Your task to perform on an android device: check data usage Image 0: 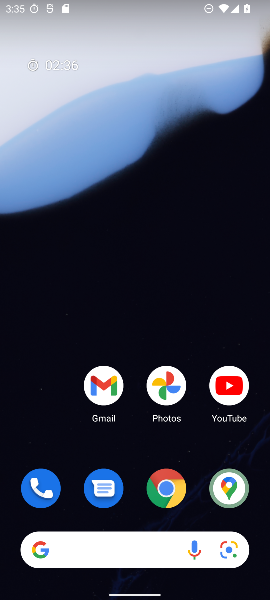
Step 0: drag from (199, 340) to (139, 8)
Your task to perform on an android device: check data usage Image 1: 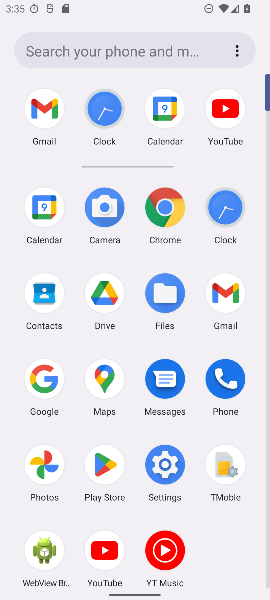
Step 1: click (156, 454)
Your task to perform on an android device: check data usage Image 2: 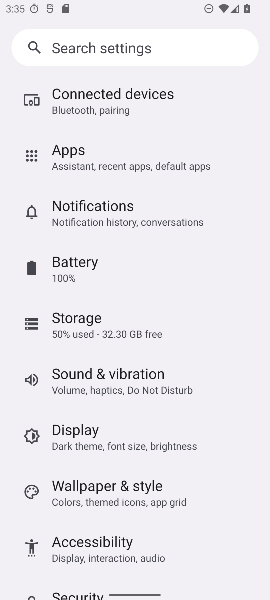
Step 2: drag from (171, 149) to (150, 488)
Your task to perform on an android device: check data usage Image 3: 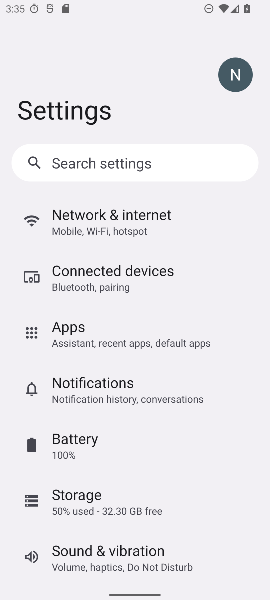
Step 3: click (120, 231)
Your task to perform on an android device: check data usage Image 4: 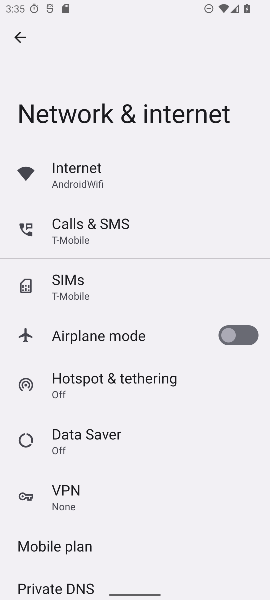
Step 4: click (116, 175)
Your task to perform on an android device: check data usage Image 5: 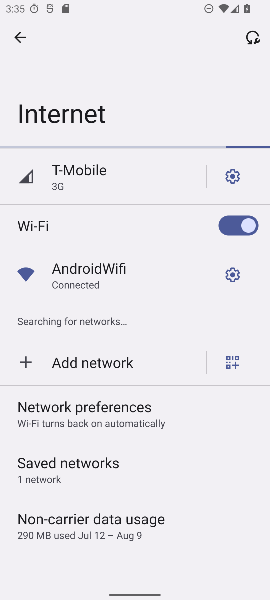
Step 5: click (130, 525)
Your task to perform on an android device: check data usage Image 6: 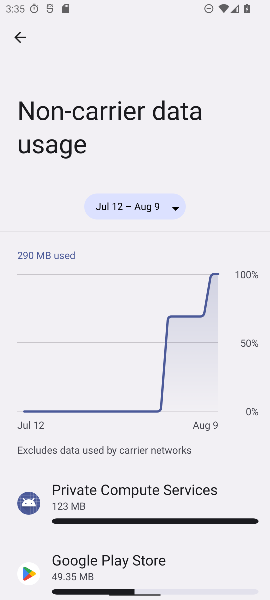
Step 6: task complete